Your task to perform on an android device: Go to CNN.com Image 0: 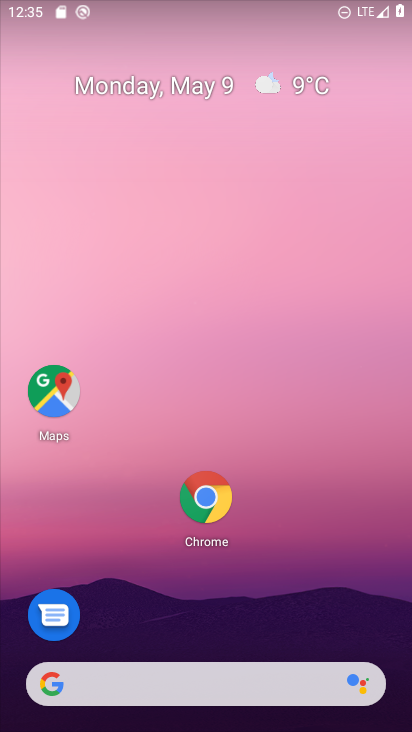
Step 0: drag from (318, 518) to (361, 39)
Your task to perform on an android device: Go to CNN.com Image 1: 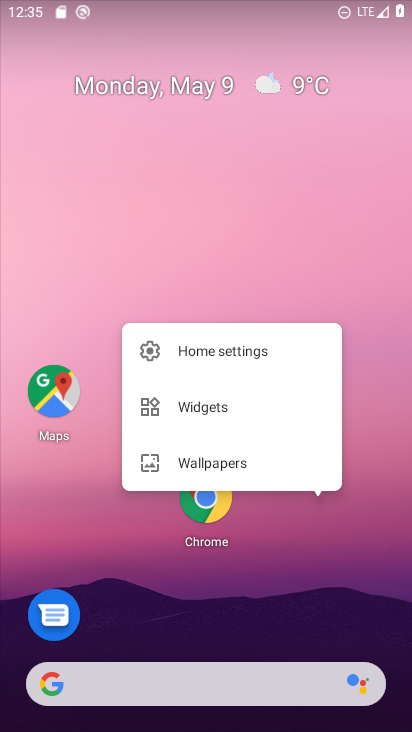
Step 1: click (195, 512)
Your task to perform on an android device: Go to CNN.com Image 2: 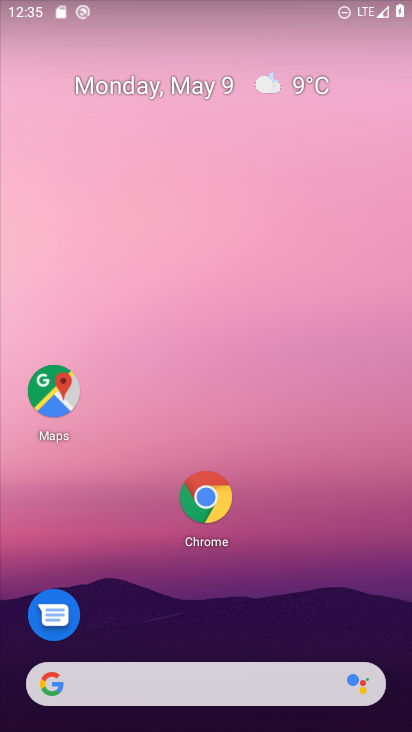
Step 2: click (211, 495)
Your task to perform on an android device: Go to CNN.com Image 3: 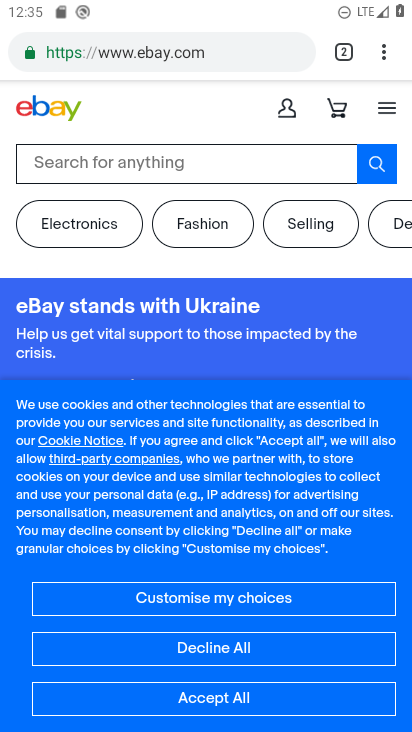
Step 3: click (188, 56)
Your task to perform on an android device: Go to CNN.com Image 4: 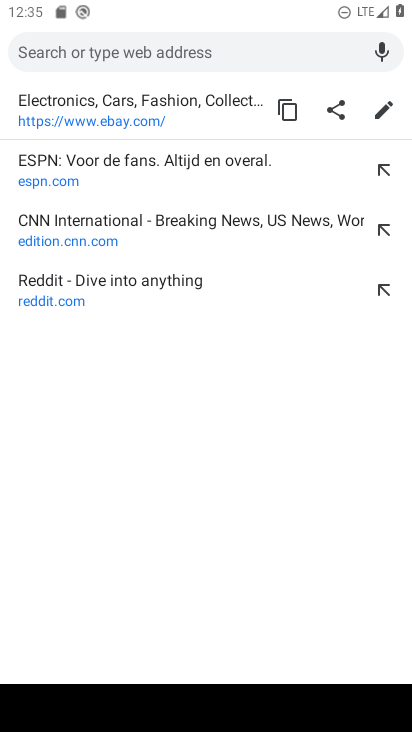
Step 4: click (188, 56)
Your task to perform on an android device: Go to CNN.com Image 5: 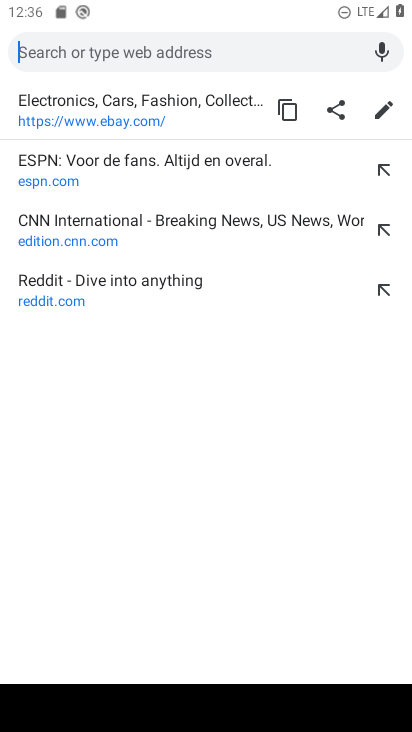
Step 5: type "cnn.com"
Your task to perform on an android device: Go to CNN.com Image 6: 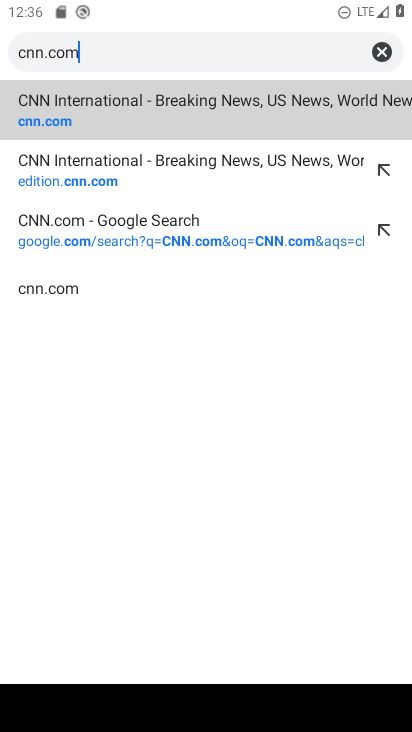
Step 6: click (116, 118)
Your task to perform on an android device: Go to CNN.com Image 7: 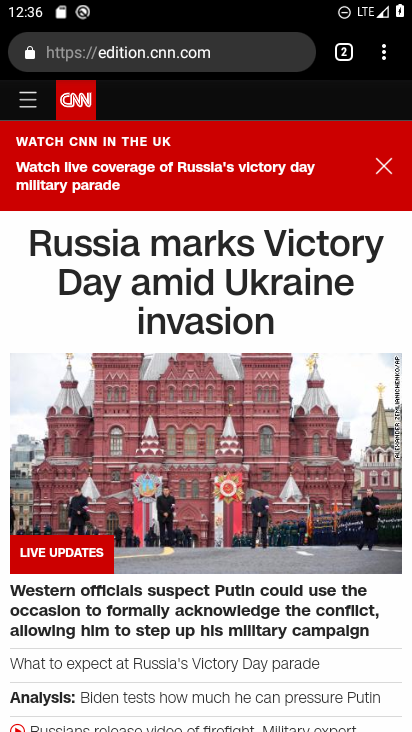
Step 7: task complete